Your task to perform on an android device: Go to battery settings Image 0: 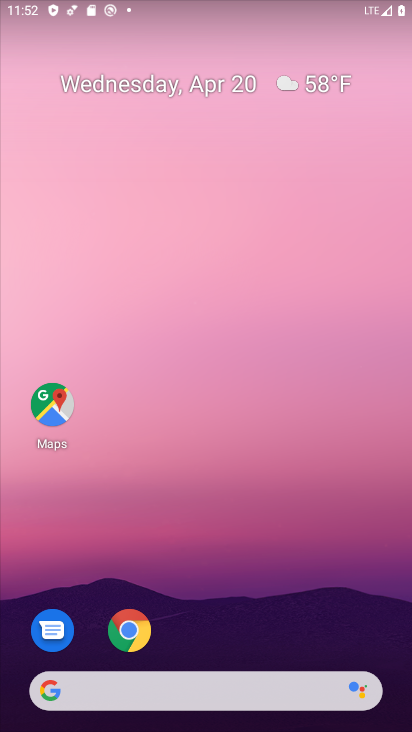
Step 0: drag from (148, 689) to (296, 145)
Your task to perform on an android device: Go to battery settings Image 1: 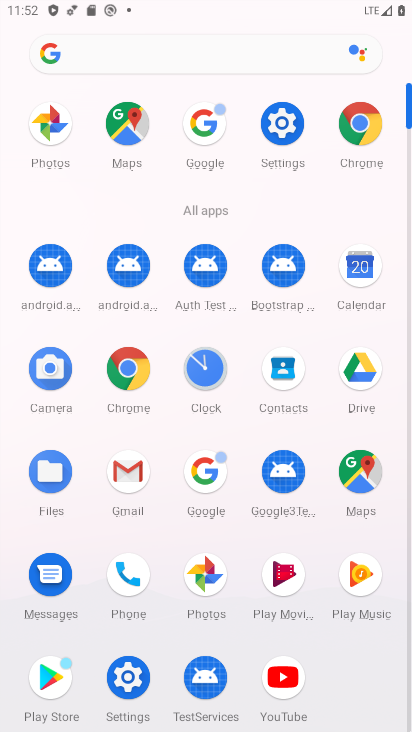
Step 1: click (282, 130)
Your task to perform on an android device: Go to battery settings Image 2: 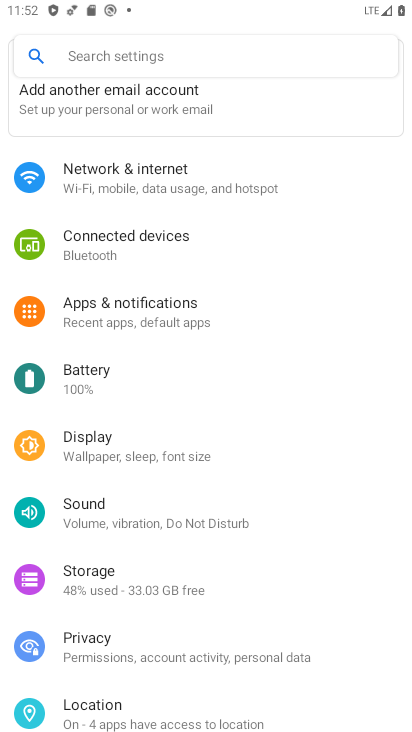
Step 2: click (73, 381)
Your task to perform on an android device: Go to battery settings Image 3: 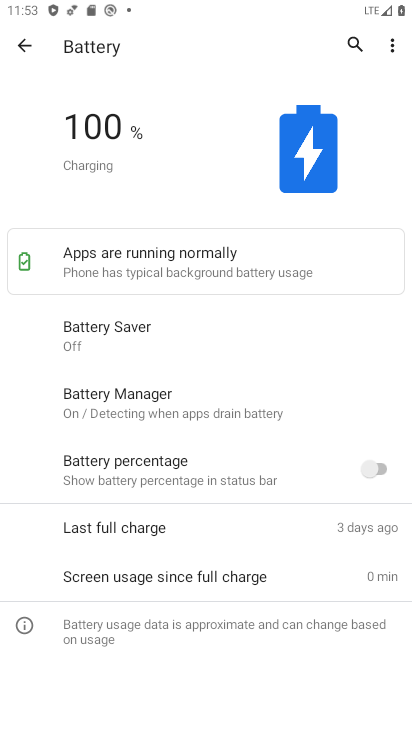
Step 3: task complete